Your task to perform on an android device: turn on bluetooth scan Image 0: 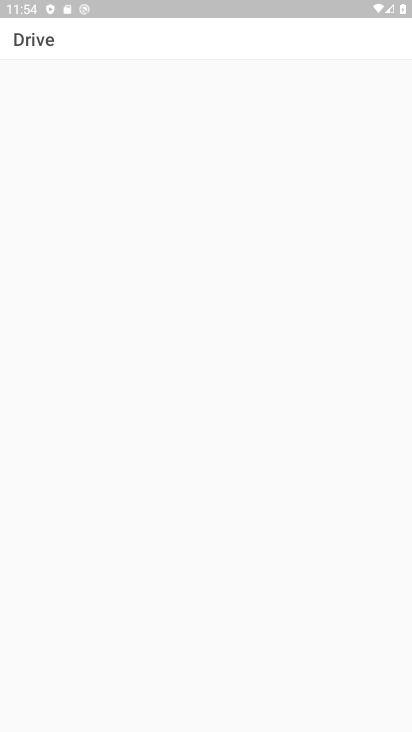
Step 0: press home button
Your task to perform on an android device: turn on bluetooth scan Image 1: 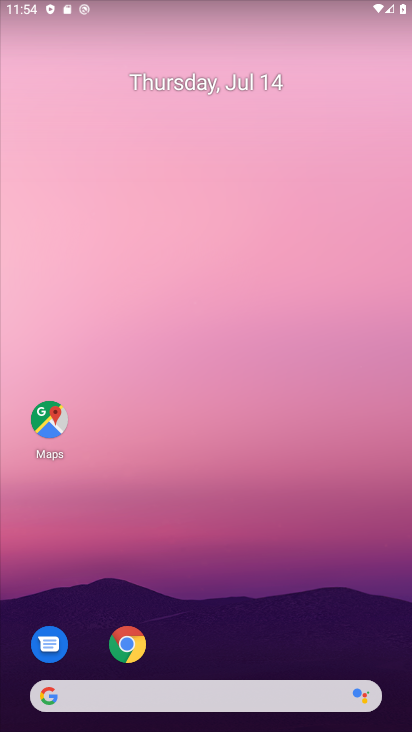
Step 1: drag from (177, 658) to (121, 122)
Your task to perform on an android device: turn on bluetooth scan Image 2: 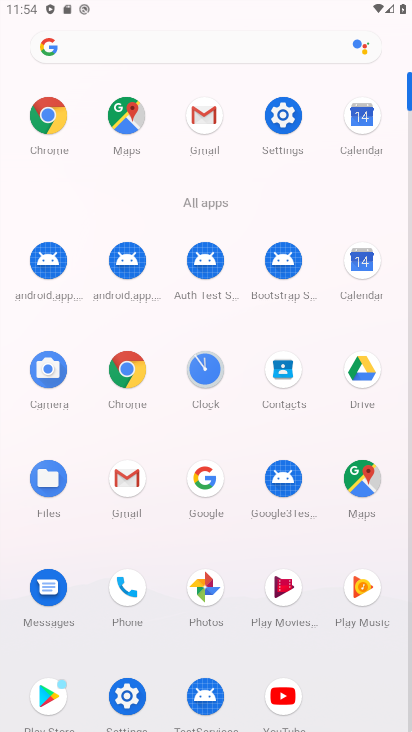
Step 2: click (113, 689)
Your task to perform on an android device: turn on bluetooth scan Image 3: 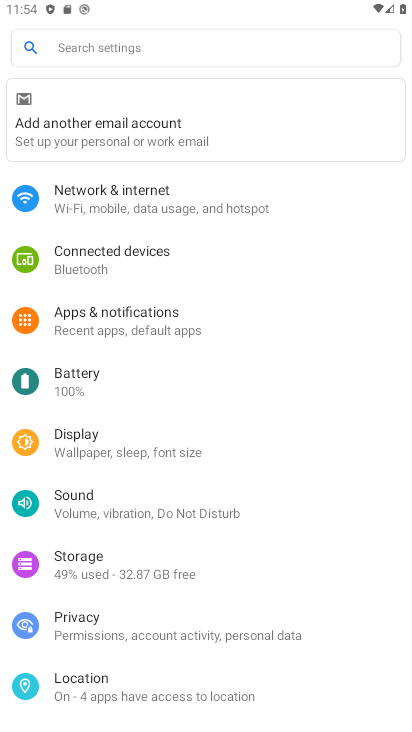
Step 3: drag from (109, 611) to (88, 479)
Your task to perform on an android device: turn on bluetooth scan Image 4: 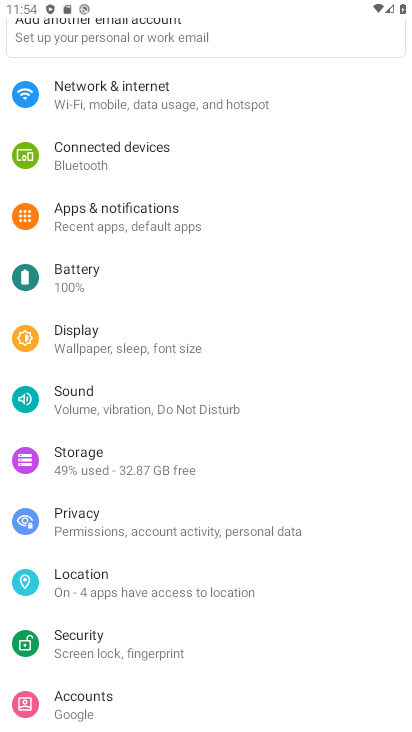
Step 4: click (115, 579)
Your task to perform on an android device: turn on bluetooth scan Image 5: 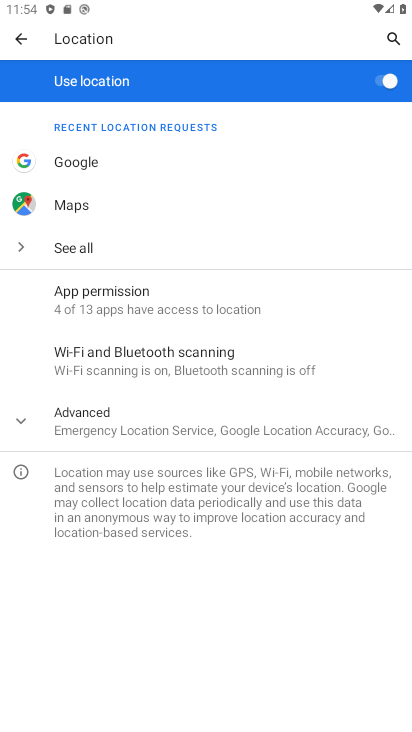
Step 5: click (166, 379)
Your task to perform on an android device: turn on bluetooth scan Image 6: 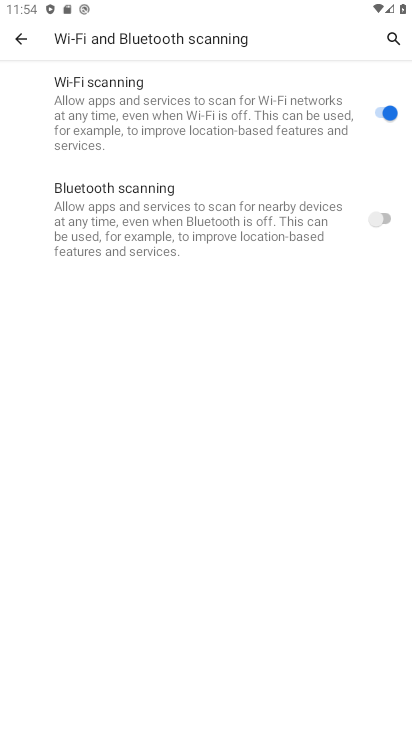
Step 6: click (371, 221)
Your task to perform on an android device: turn on bluetooth scan Image 7: 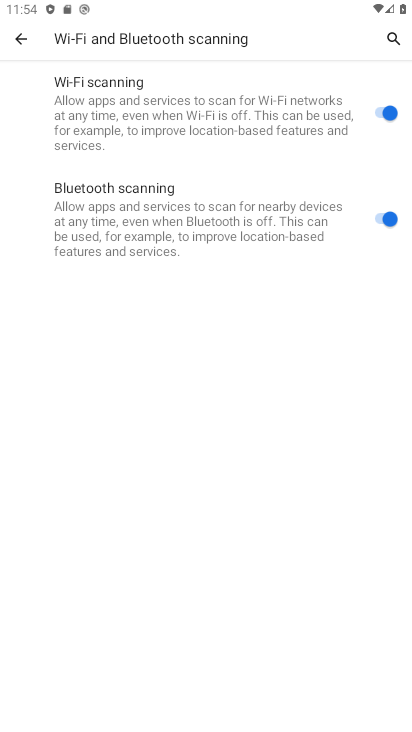
Step 7: task complete